Your task to perform on an android device: toggle wifi Image 0: 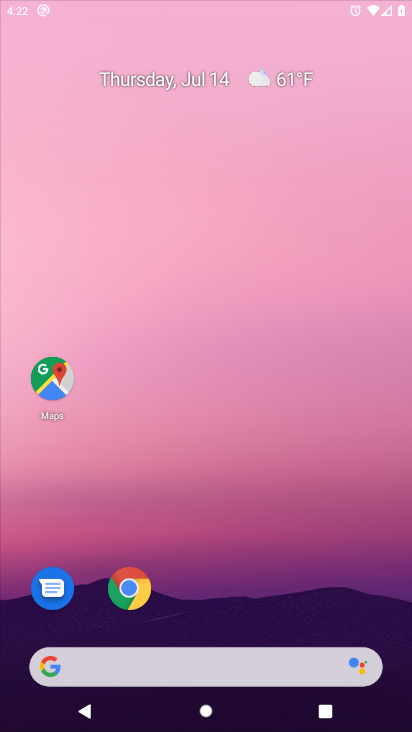
Step 0: press home button
Your task to perform on an android device: toggle wifi Image 1: 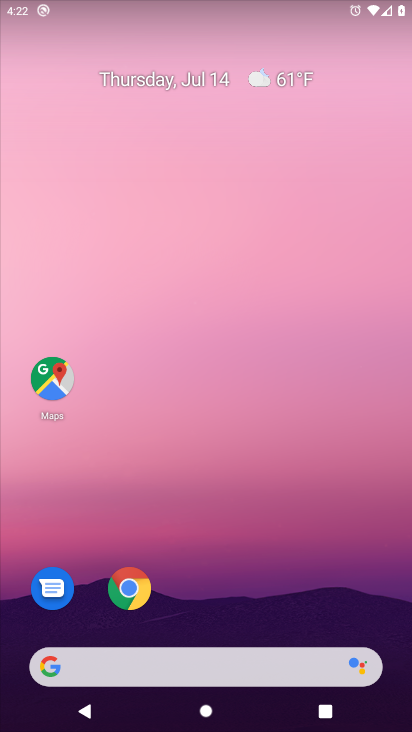
Step 1: drag from (181, 1) to (255, 479)
Your task to perform on an android device: toggle wifi Image 2: 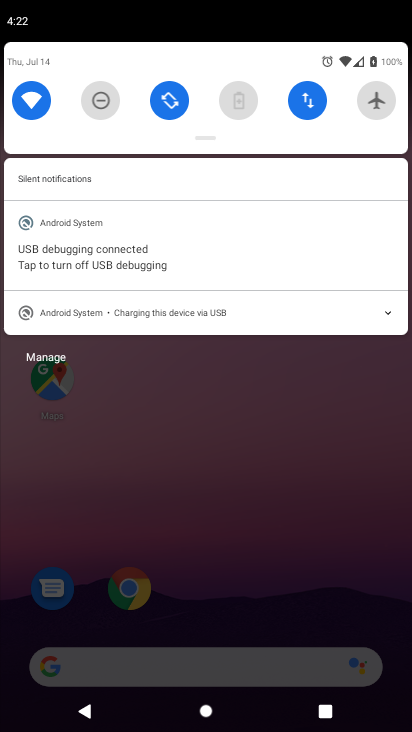
Step 2: click (27, 106)
Your task to perform on an android device: toggle wifi Image 3: 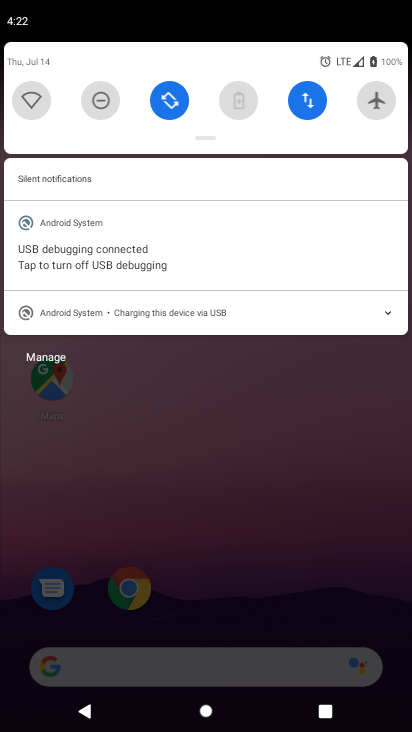
Step 3: task complete